Your task to perform on an android device: Do I have any events today? Image 0: 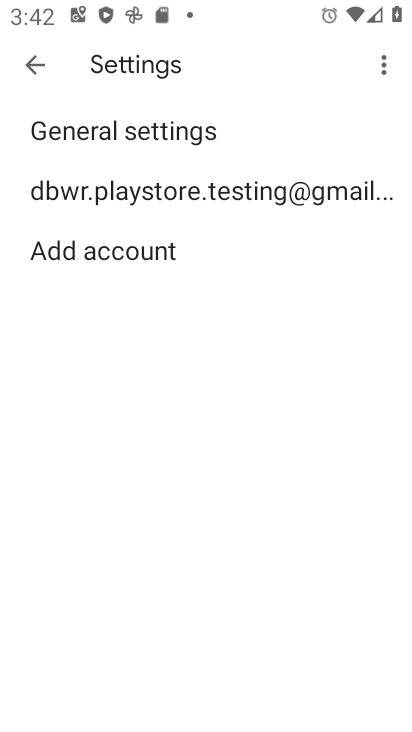
Step 0: press home button
Your task to perform on an android device: Do I have any events today? Image 1: 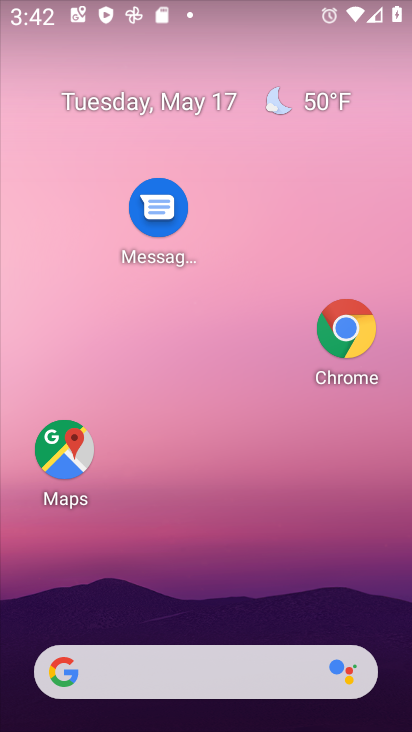
Step 1: drag from (203, 577) to (228, 281)
Your task to perform on an android device: Do I have any events today? Image 2: 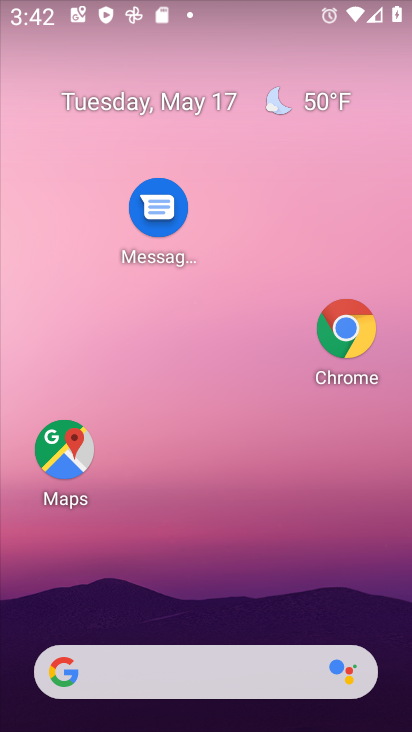
Step 2: drag from (227, 590) to (258, 120)
Your task to perform on an android device: Do I have any events today? Image 3: 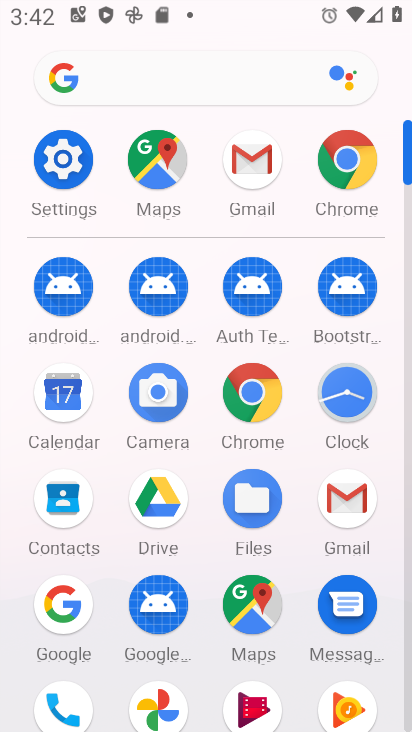
Step 3: click (73, 185)
Your task to perform on an android device: Do I have any events today? Image 4: 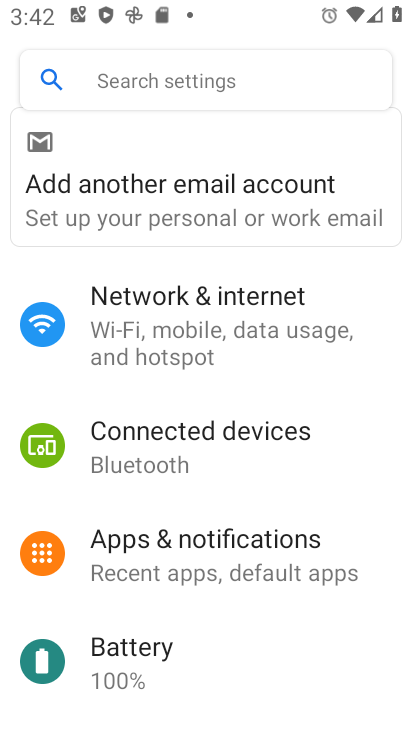
Step 4: press home button
Your task to perform on an android device: Do I have any events today? Image 5: 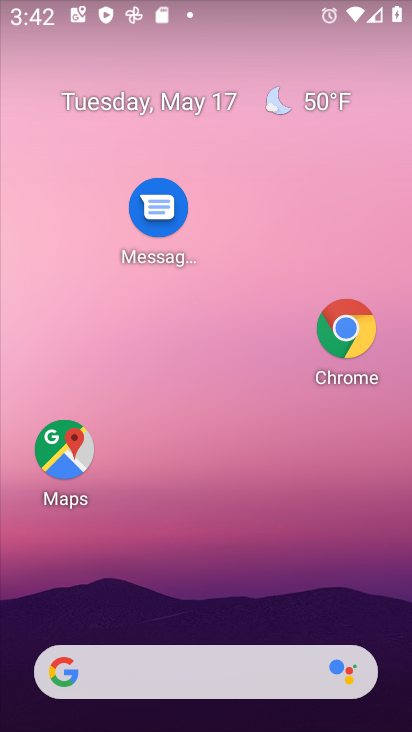
Step 5: drag from (207, 592) to (244, 128)
Your task to perform on an android device: Do I have any events today? Image 6: 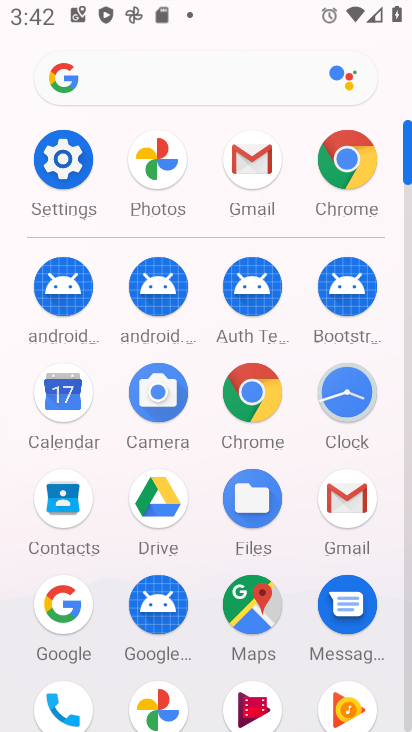
Step 6: click (79, 383)
Your task to perform on an android device: Do I have any events today? Image 7: 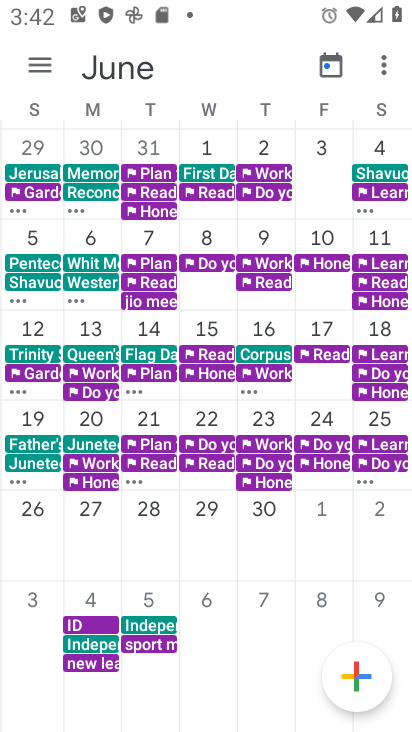
Step 7: task complete